Your task to perform on an android device: change the clock display to show seconds Image 0: 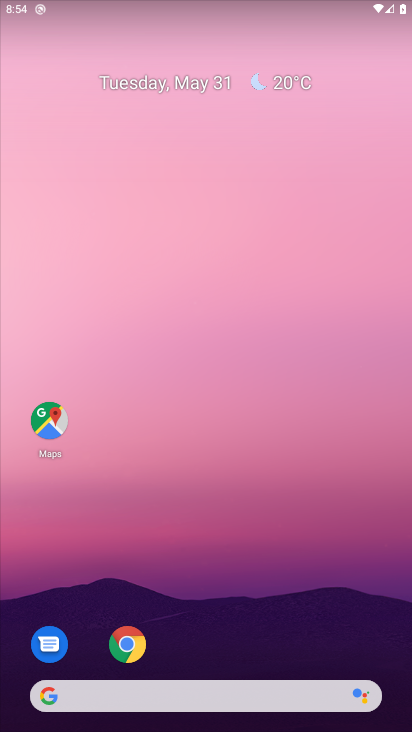
Step 0: press home button
Your task to perform on an android device: change the clock display to show seconds Image 1: 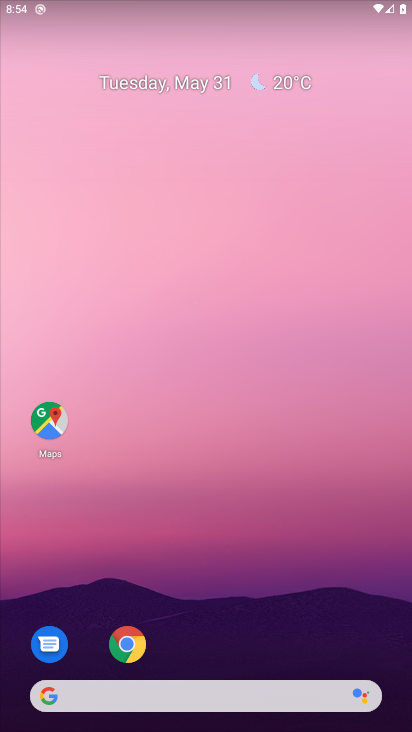
Step 1: drag from (209, 656) to (232, 154)
Your task to perform on an android device: change the clock display to show seconds Image 2: 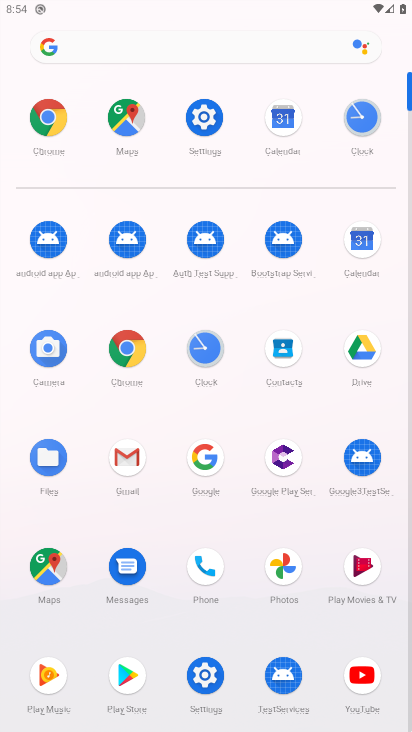
Step 2: click (192, 344)
Your task to perform on an android device: change the clock display to show seconds Image 3: 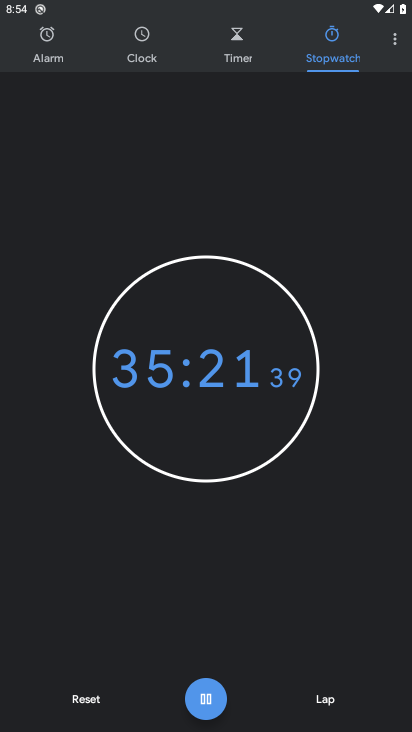
Step 3: click (87, 672)
Your task to perform on an android device: change the clock display to show seconds Image 4: 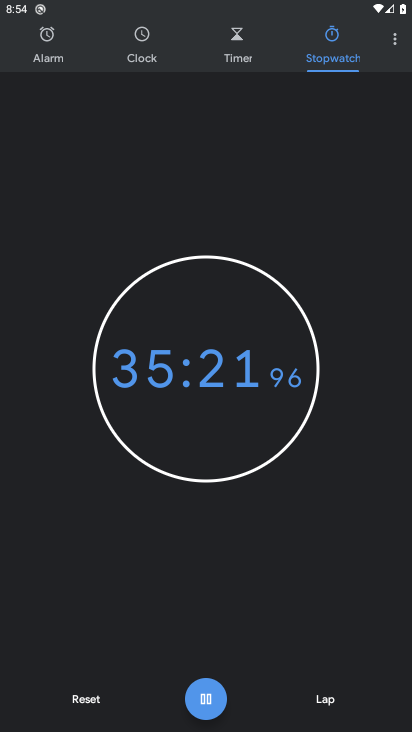
Step 4: click (91, 690)
Your task to perform on an android device: change the clock display to show seconds Image 5: 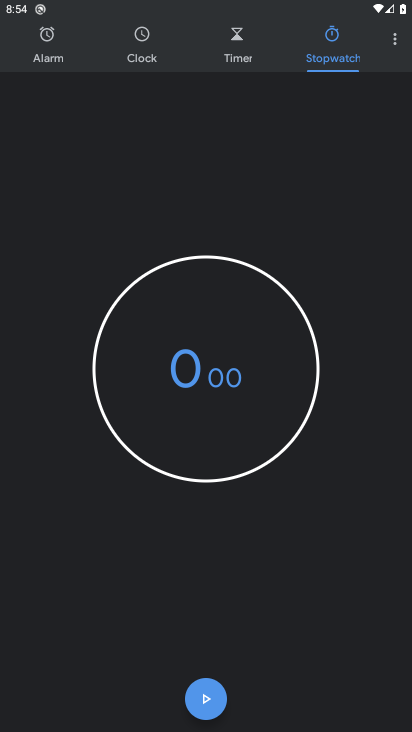
Step 5: click (393, 35)
Your task to perform on an android device: change the clock display to show seconds Image 6: 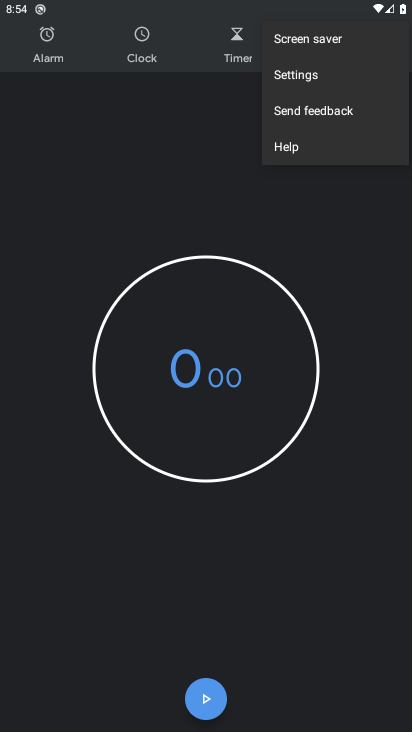
Step 6: click (324, 74)
Your task to perform on an android device: change the clock display to show seconds Image 7: 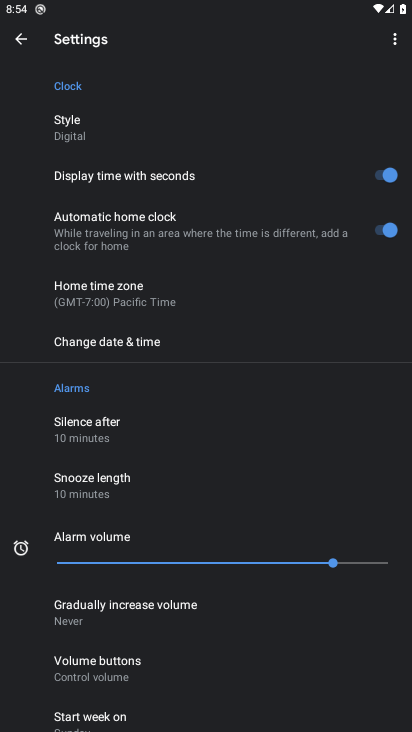
Step 7: click (386, 171)
Your task to perform on an android device: change the clock display to show seconds Image 8: 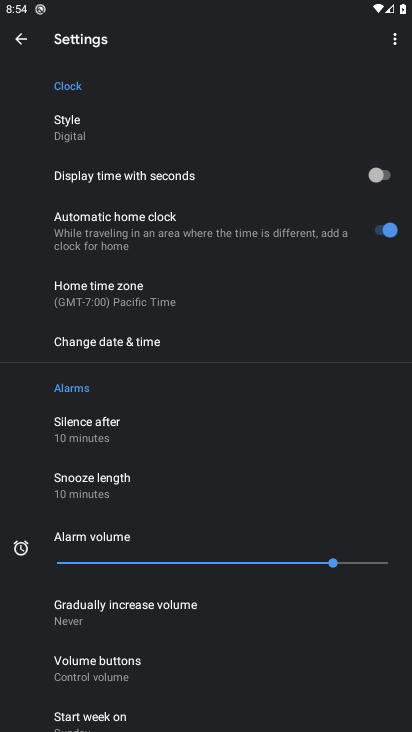
Step 8: task complete